Your task to perform on an android device: What's the weather going to be tomorrow? Image 0: 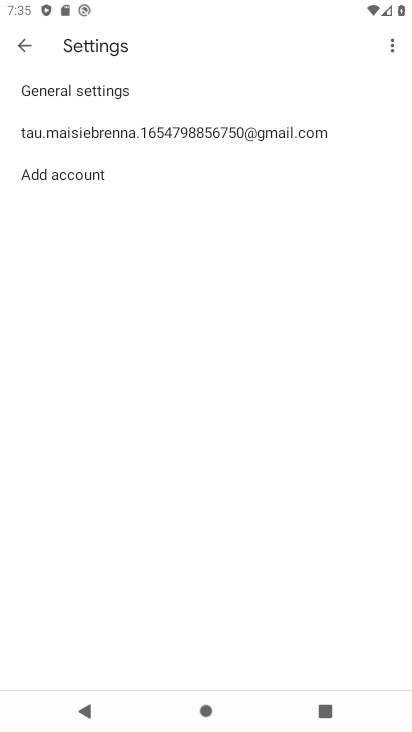
Step 0: press home button
Your task to perform on an android device: What's the weather going to be tomorrow? Image 1: 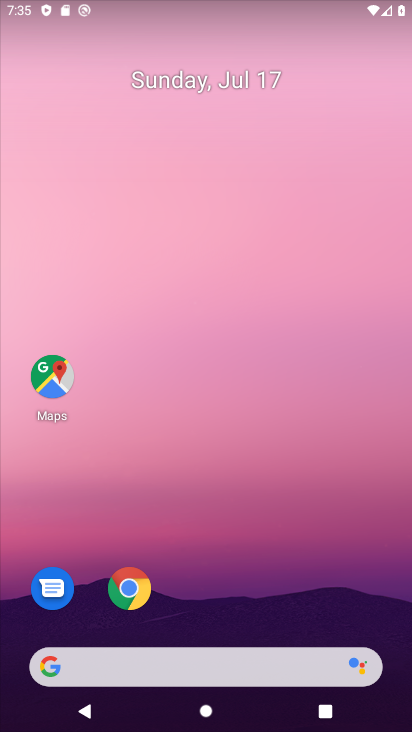
Step 1: drag from (226, 575) to (202, 24)
Your task to perform on an android device: What's the weather going to be tomorrow? Image 2: 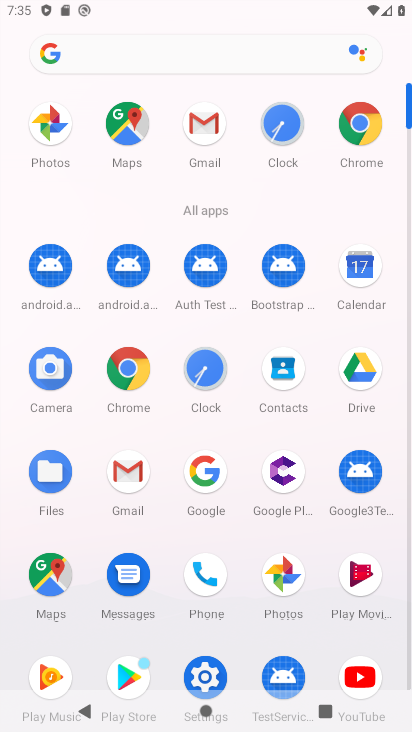
Step 2: click (209, 492)
Your task to perform on an android device: What's the weather going to be tomorrow? Image 3: 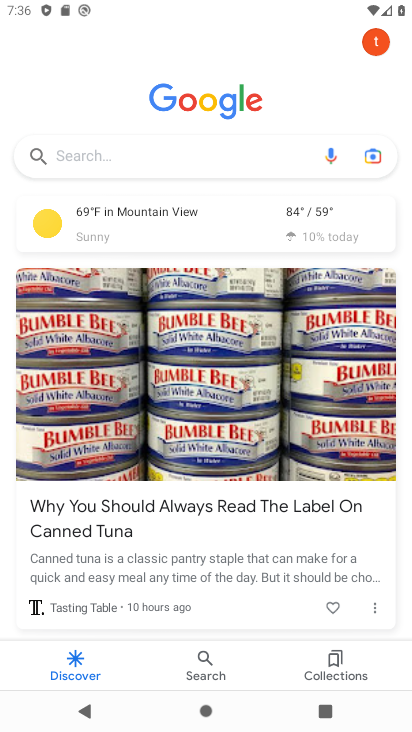
Step 3: click (153, 166)
Your task to perform on an android device: What's the weather going to be tomorrow? Image 4: 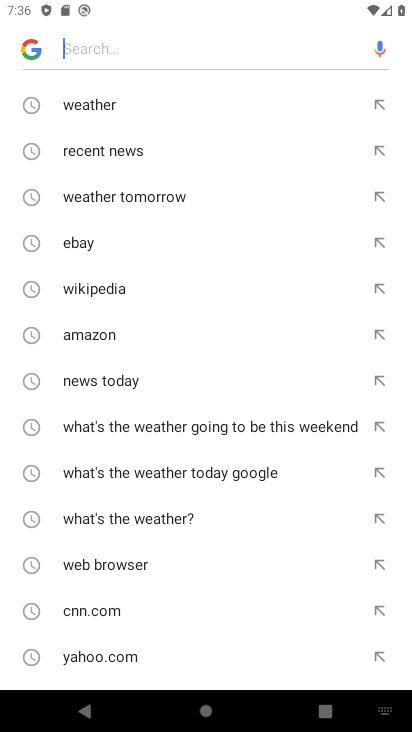
Step 4: click (150, 196)
Your task to perform on an android device: What's the weather going to be tomorrow? Image 5: 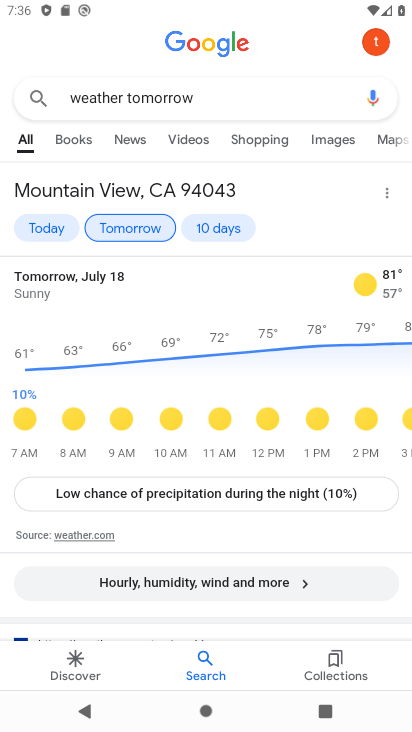
Step 5: task complete